Your task to perform on an android device: toggle notifications settings in the gmail app Image 0: 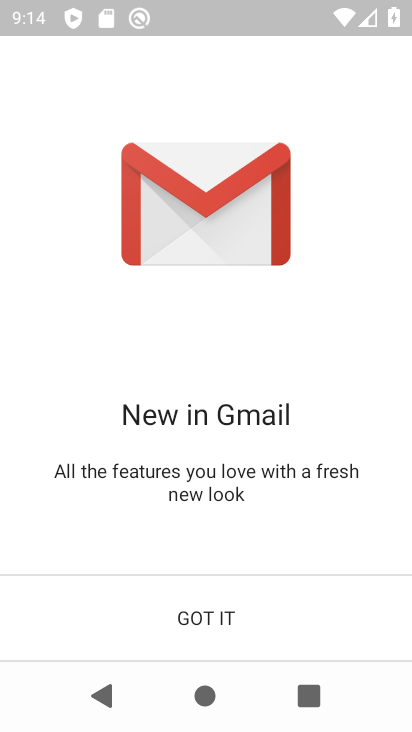
Step 0: press home button
Your task to perform on an android device: toggle notifications settings in the gmail app Image 1: 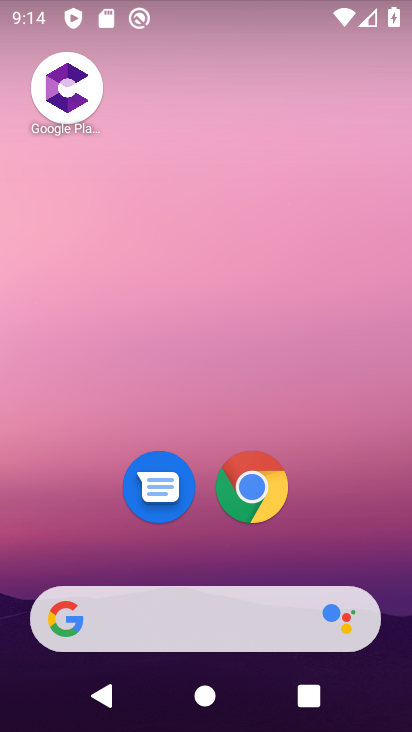
Step 1: drag from (210, 549) to (243, 3)
Your task to perform on an android device: toggle notifications settings in the gmail app Image 2: 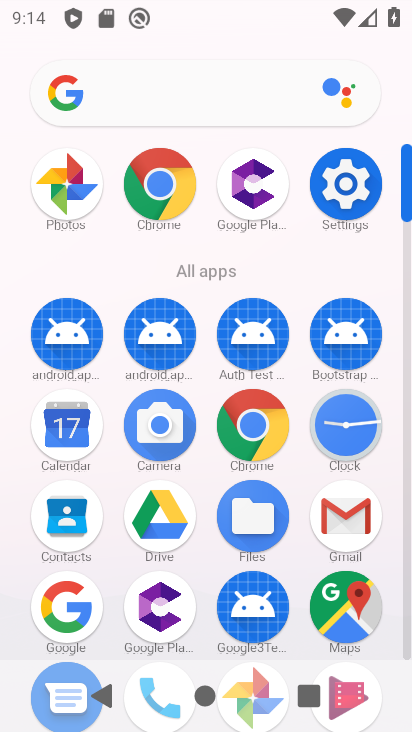
Step 2: click (341, 535)
Your task to perform on an android device: toggle notifications settings in the gmail app Image 3: 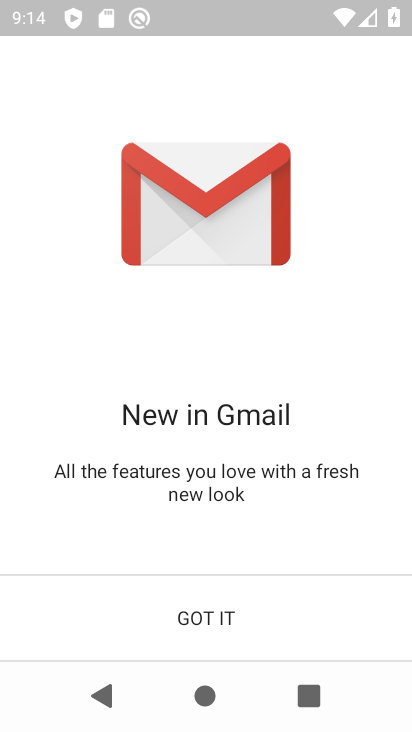
Step 3: click (264, 609)
Your task to perform on an android device: toggle notifications settings in the gmail app Image 4: 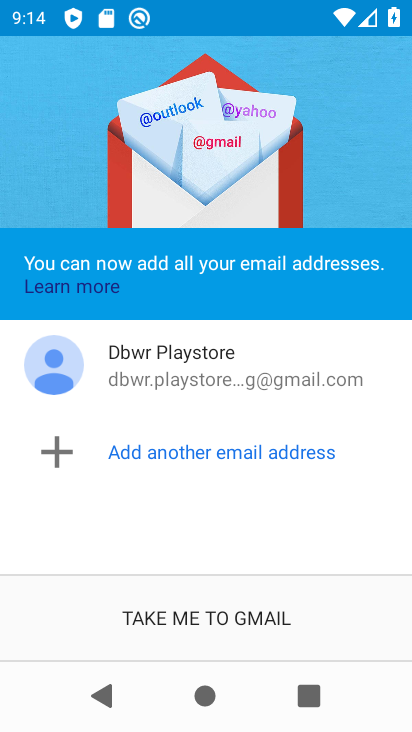
Step 4: click (216, 618)
Your task to perform on an android device: toggle notifications settings in the gmail app Image 5: 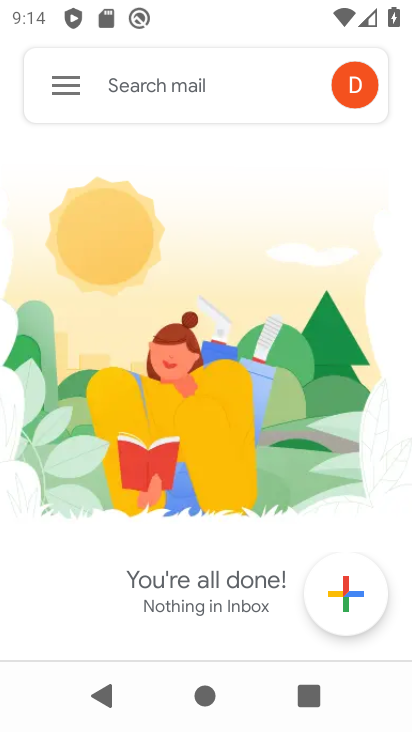
Step 5: click (64, 86)
Your task to perform on an android device: toggle notifications settings in the gmail app Image 6: 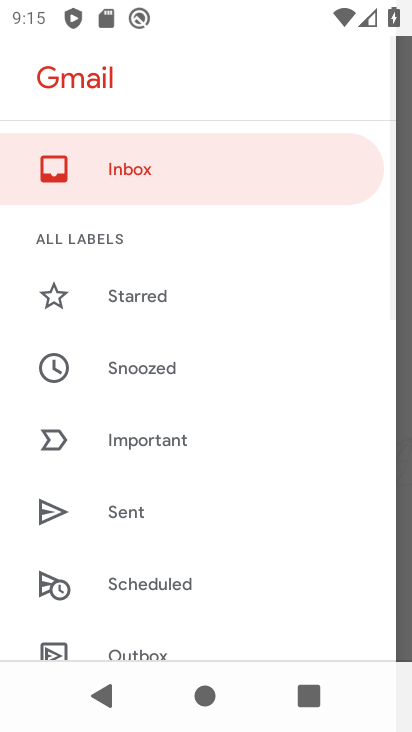
Step 6: drag from (131, 621) to (239, 266)
Your task to perform on an android device: toggle notifications settings in the gmail app Image 7: 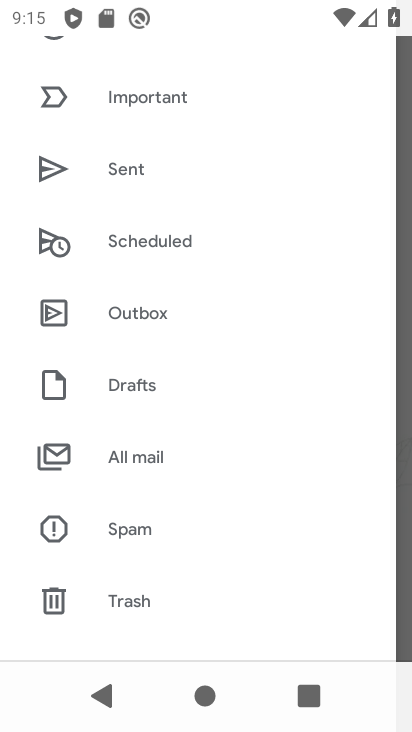
Step 7: drag from (135, 581) to (214, 244)
Your task to perform on an android device: toggle notifications settings in the gmail app Image 8: 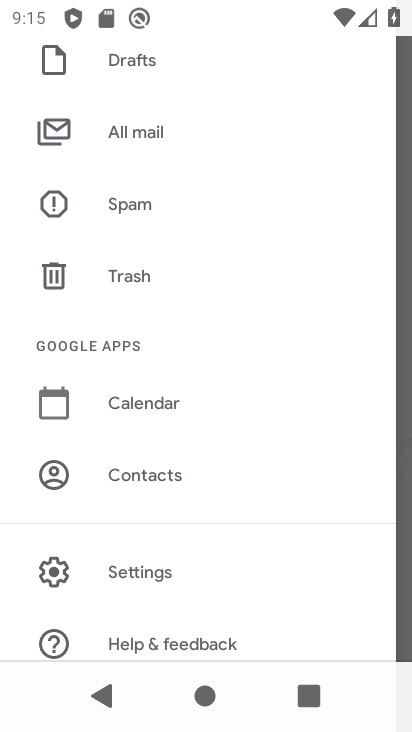
Step 8: click (153, 576)
Your task to perform on an android device: toggle notifications settings in the gmail app Image 9: 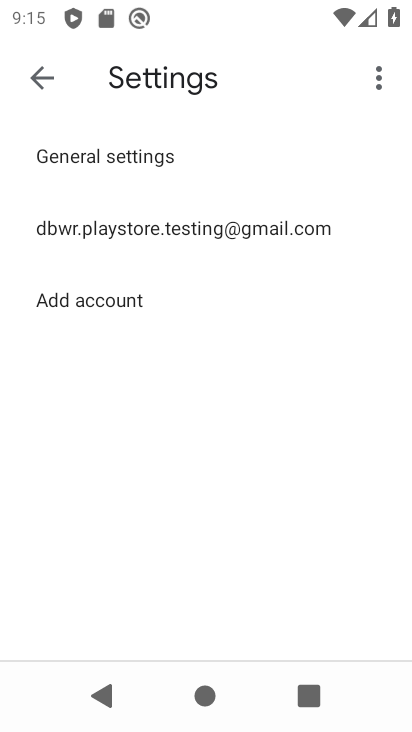
Step 9: click (154, 169)
Your task to perform on an android device: toggle notifications settings in the gmail app Image 10: 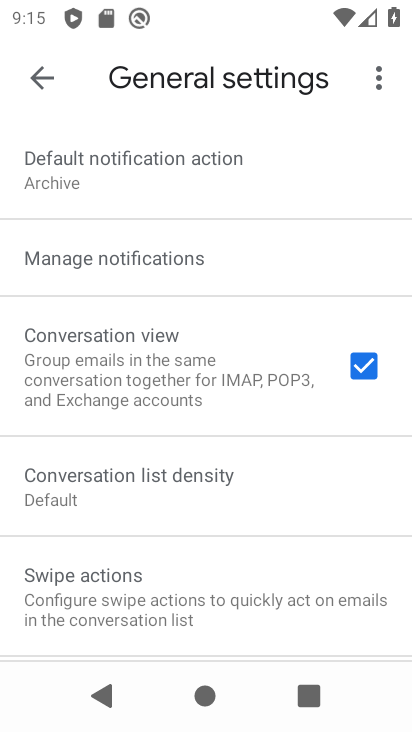
Step 10: click (136, 258)
Your task to perform on an android device: toggle notifications settings in the gmail app Image 11: 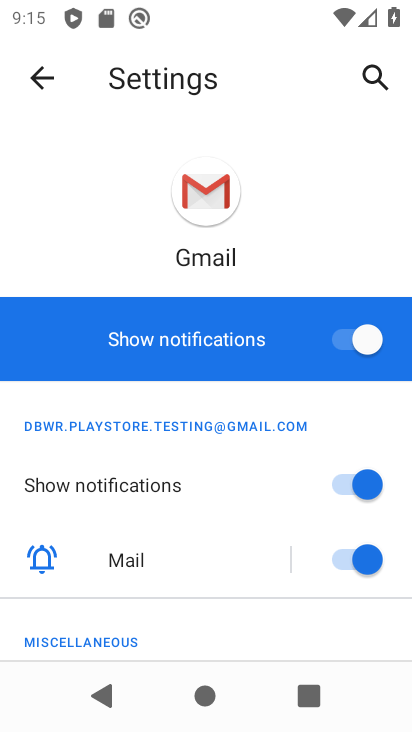
Step 11: click (335, 350)
Your task to perform on an android device: toggle notifications settings in the gmail app Image 12: 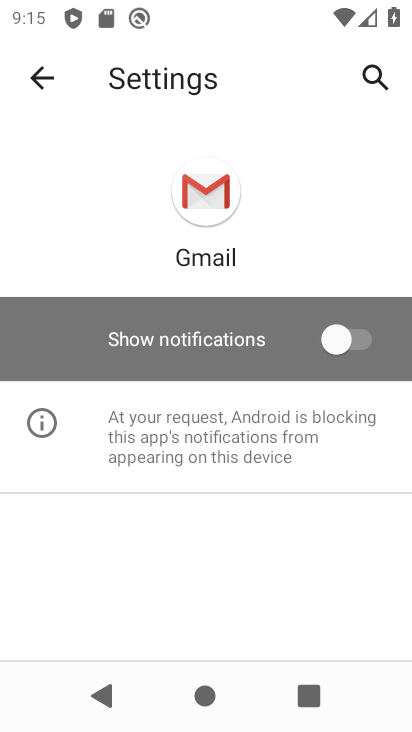
Step 12: task complete